Your task to perform on an android device: Open calendar and show me the fourth week of next month Image 0: 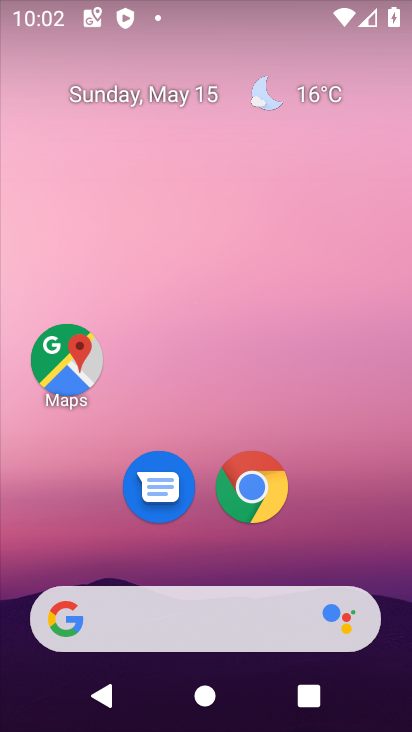
Step 0: drag from (394, 635) to (351, 136)
Your task to perform on an android device: Open calendar and show me the fourth week of next month Image 1: 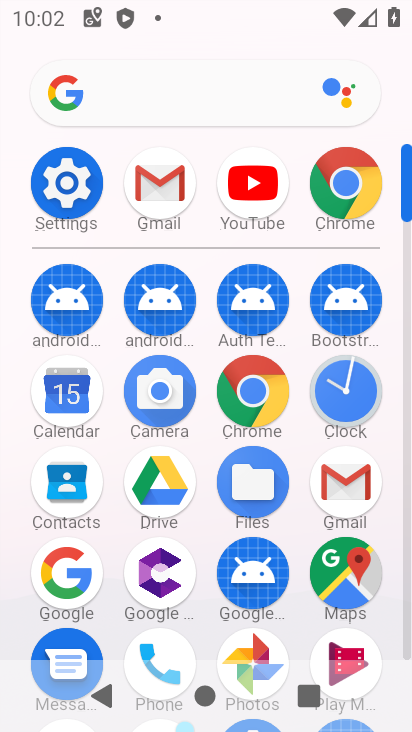
Step 1: click (406, 635)
Your task to perform on an android device: Open calendar and show me the fourth week of next month Image 2: 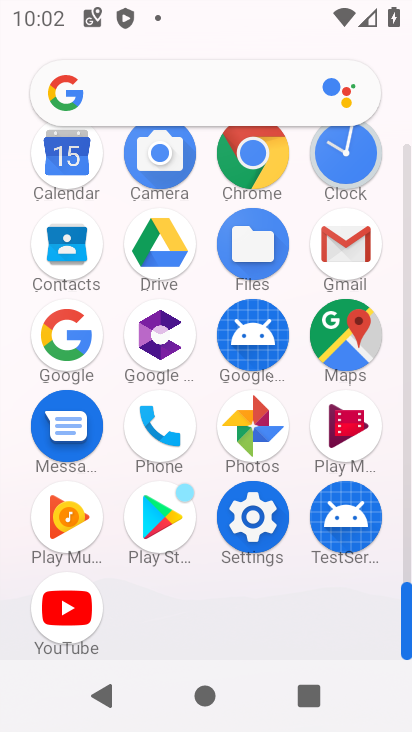
Step 2: click (62, 153)
Your task to perform on an android device: Open calendar and show me the fourth week of next month Image 3: 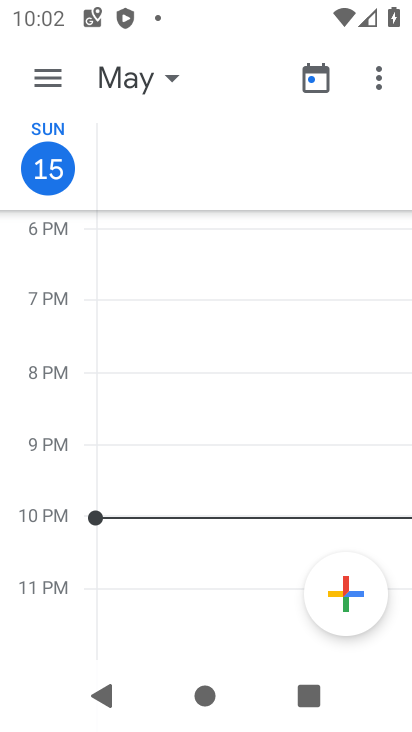
Step 3: click (46, 74)
Your task to perform on an android device: Open calendar and show me the fourth week of next month Image 4: 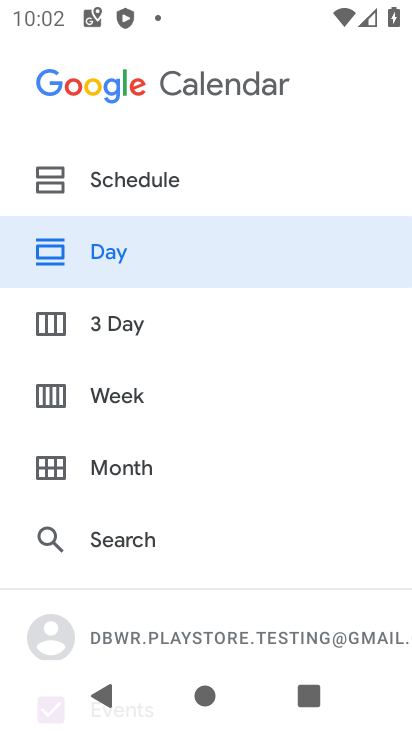
Step 4: click (120, 393)
Your task to perform on an android device: Open calendar and show me the fourth week of next month Image 5: 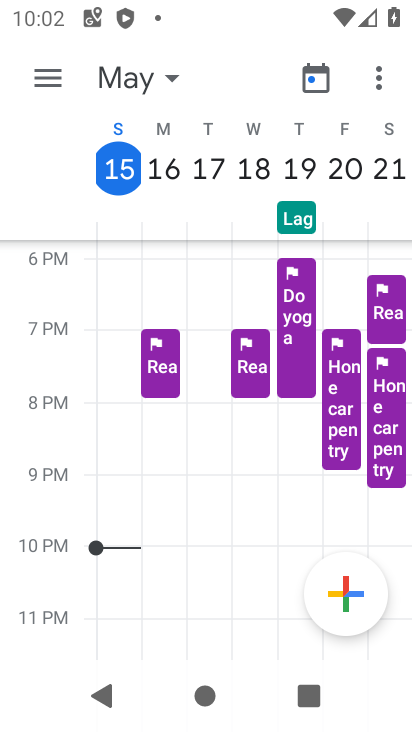
Step 5: click (166, 78)
Your task to perform on an android device: Open calendar and show me the fourth week of next month Image 6: 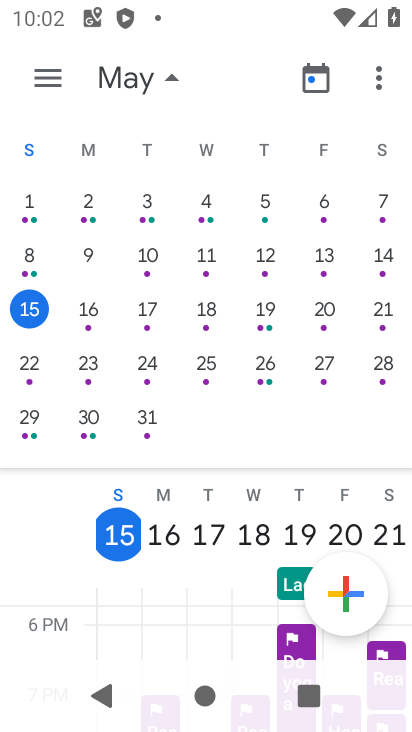
Step 6: drag from (381, 304) to (16, 208)
Your task to perform on an android device: Open calendar and show me the fourth week of next month Image 7: 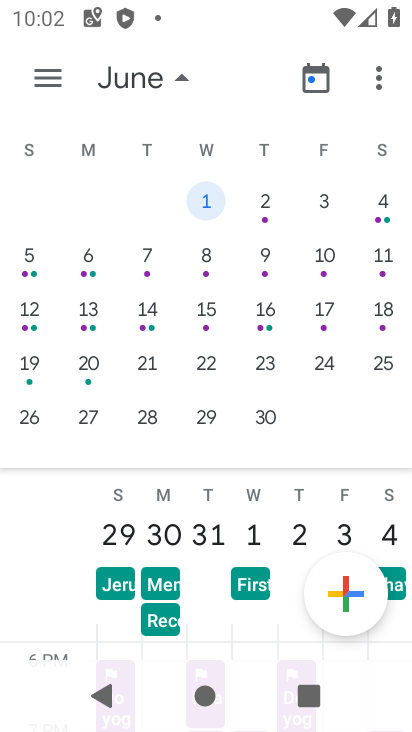
Step 7: click (26, 363)
Your task to perform on an android device: Open calendar and show me the fourth week of next month Image 8: 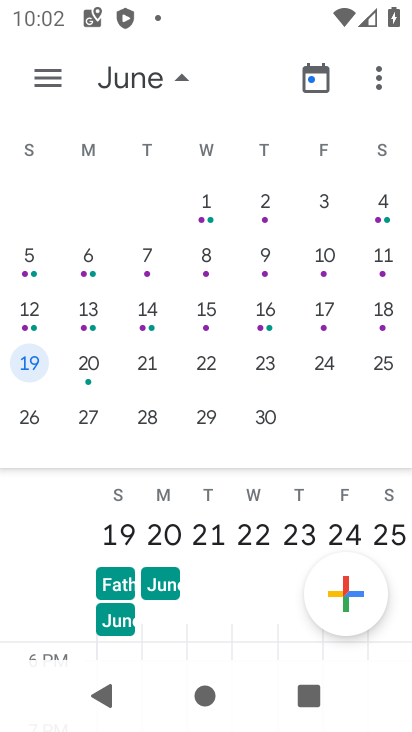
Step 8: task complete